Your task to perform on an android device: open chrome privacy settings Image 0: 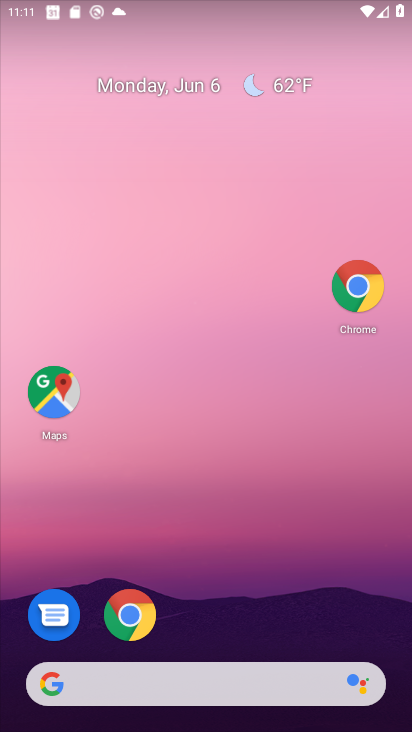
Step 0: drag from (189, 286) to (181, 213)
Your task to perform on an android device: open chrome privacy settings Image 1: 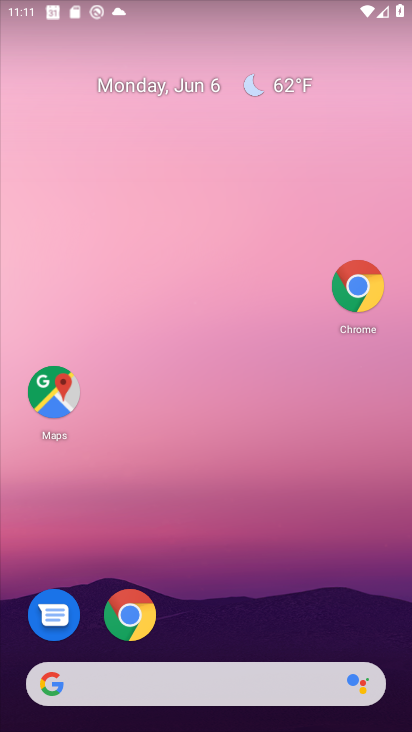
Step 1: drag from (232, 697) to (110, 3)
Your task to perform on an android device: open chrome privacy settings Image 2: 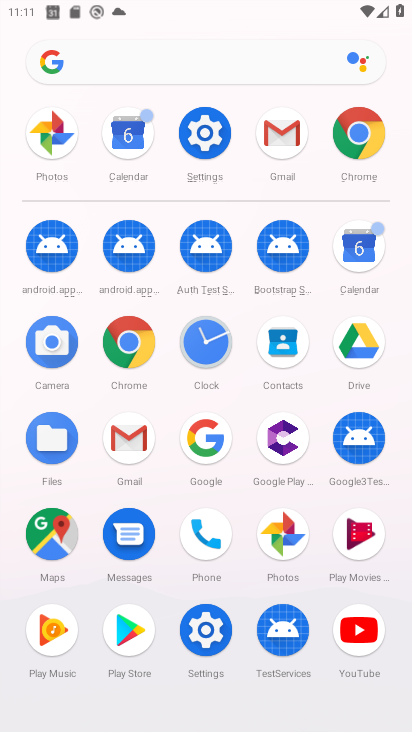
Step 2: click (358, 137)
Your task to perform on an android device: open chrome privacy settings Image 3: 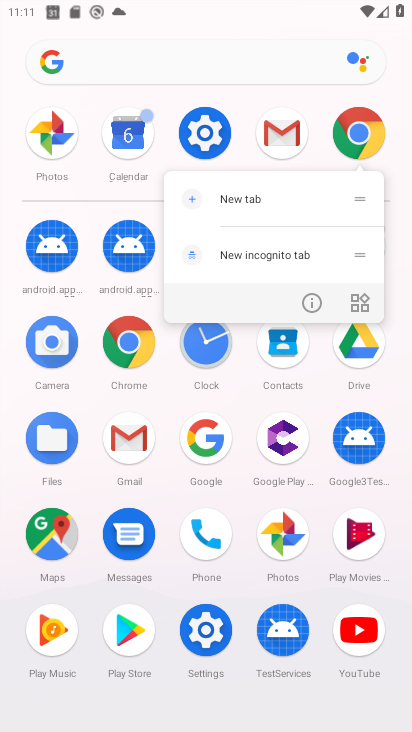
Step 3: click (205, 142)
Your task to perform on an android device: open chrome privacy settings Image 4: 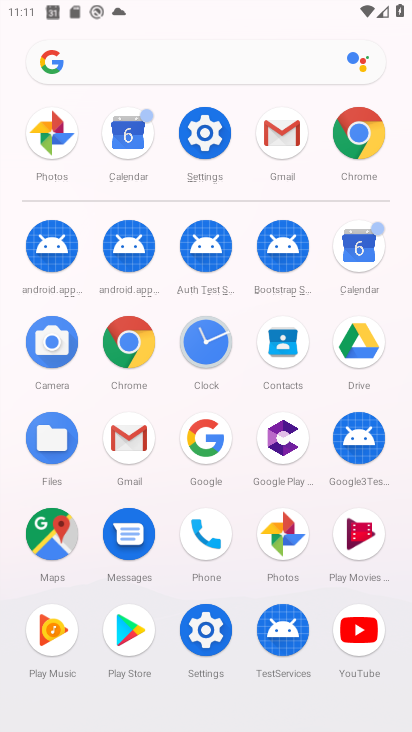
Step 4: click (355, 130)
Your task to perform on an android device: open chrome privacy settings Image 5: 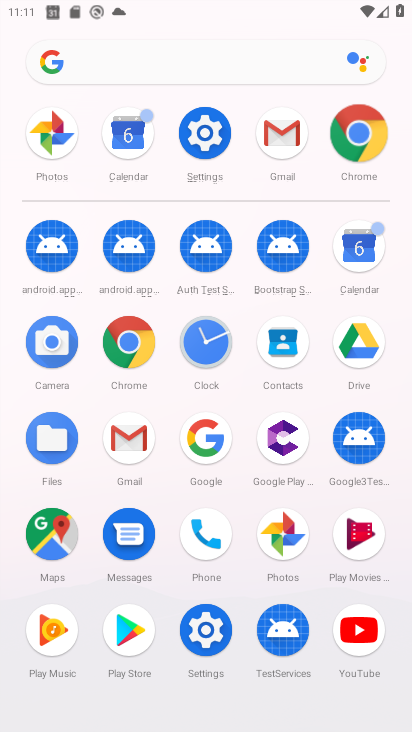
Step 5: click (358, 131)
Your task to perform on an android device: open chrome privacy settings Image 6: 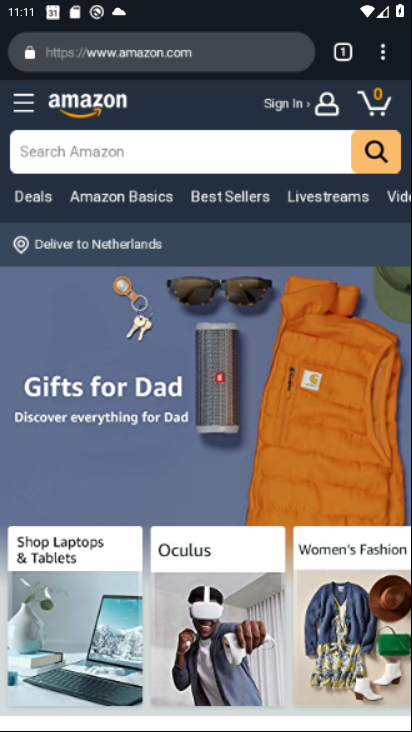
Step 6: drag from (377, 51) to (154, 627)
Your task to perform on an android device: open chrome privacy settings Image 7: 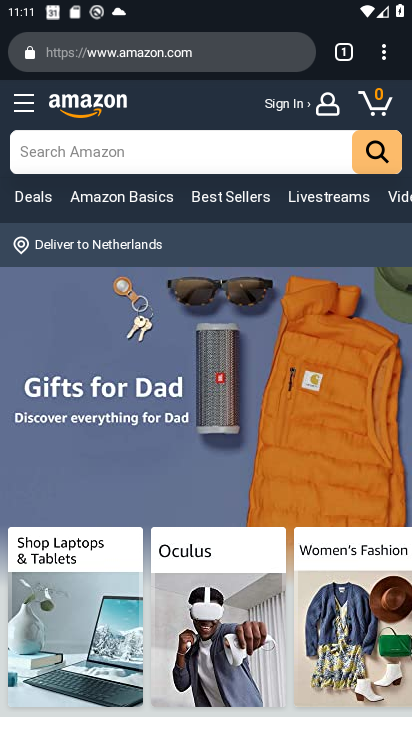
Step 7: drag from (381, 52) to (203, 635)
Your task to perform on an android device: open chrome privacy settings Image 8: 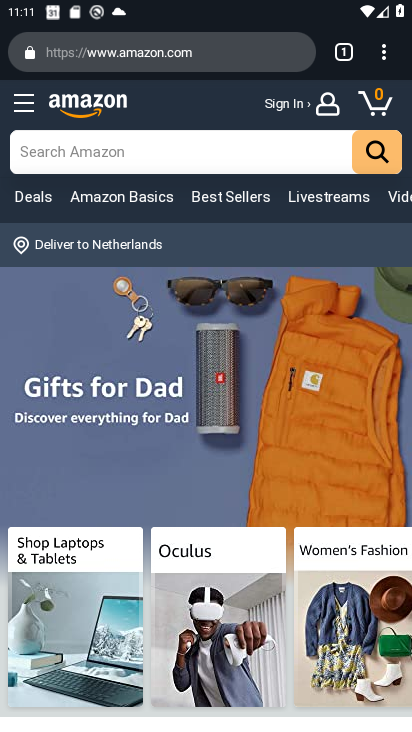
Step 8: click (202, 635)
Your task to perform on an android device: open chrome privacy settings Image 9: 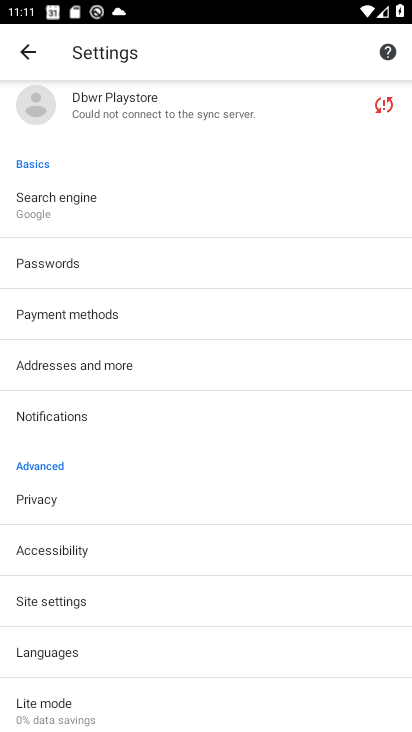
Step 9: click (45, 500)
Your task to perform on an android device: open chrome privacy settings Image 10: 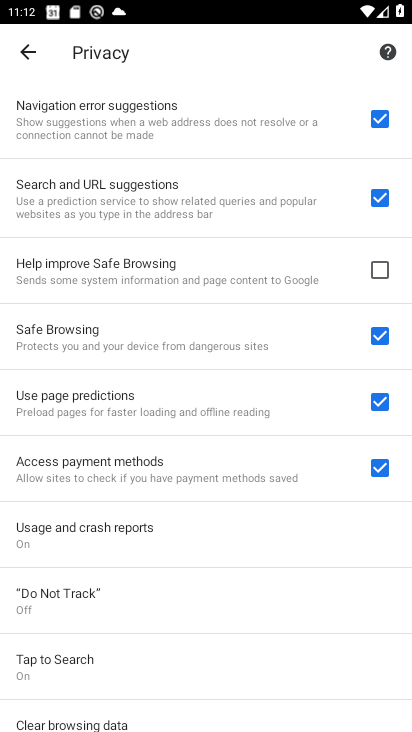
Step 10: task complete